Your task to perform on an android device: clear history in the chrome app Image 0: 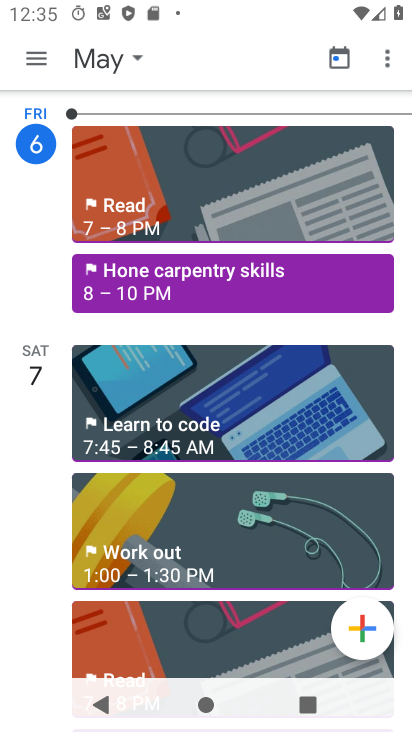
Step 0: press home button
Your task to perform on an android device: clear history in the chrome app Image 1: 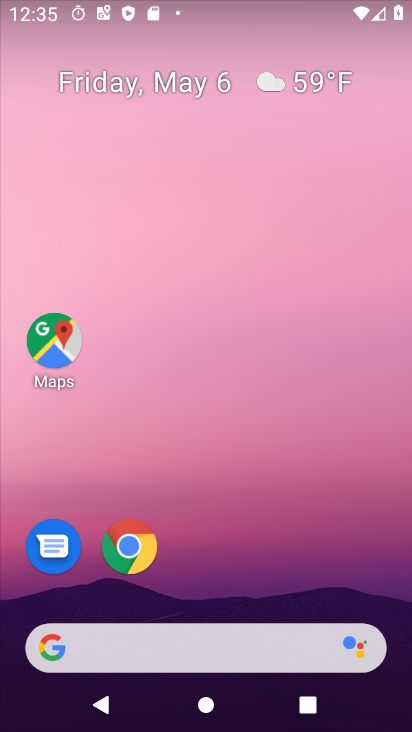
Step 1: click (135, 551)
Your task to perform on an android device: clear history in the chrome app Image 2: 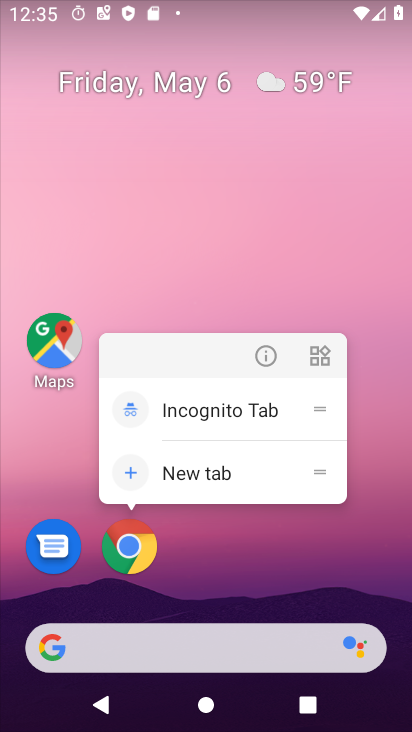
Step 2: click (134, 550)
Your task to perform on an android device: clear history in the chrome app Image 3: 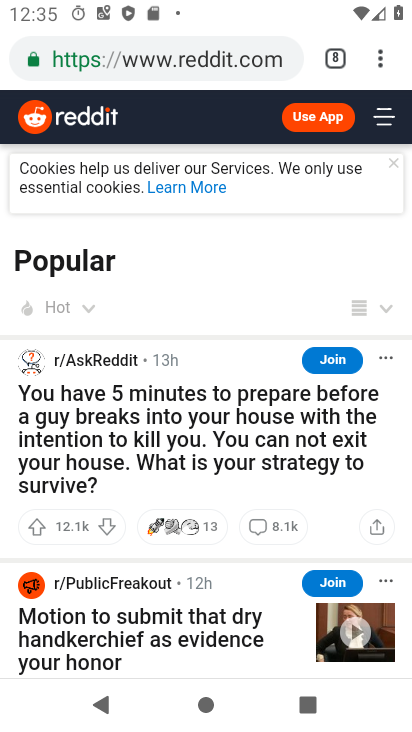
Step 3: click (387, 52)
Your task to perform on an android device: clear history in the chrome app Image 4: 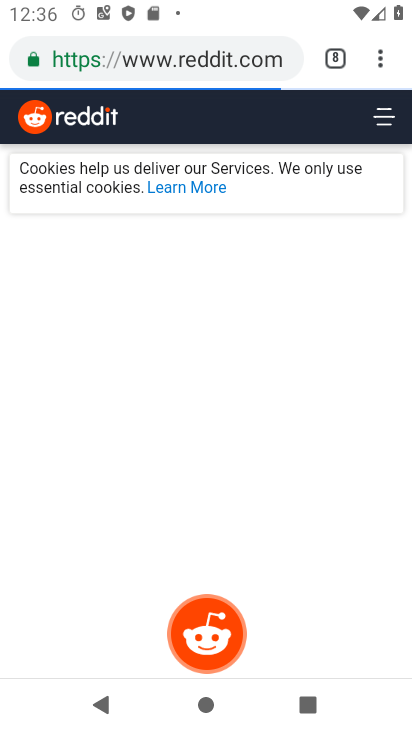
Step 4: click (387, 67)
Your task to perform on an android device: clear history in the chrome app Image 5: 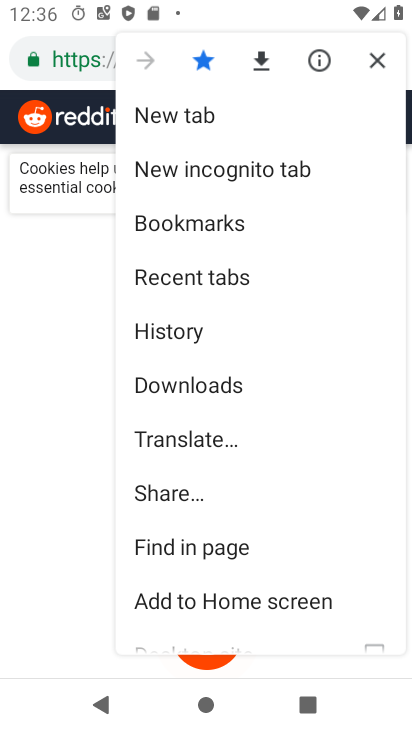
Step 5: click (189, 331)
Your task to perform on an android device: clear history in the chrome app Image 6: 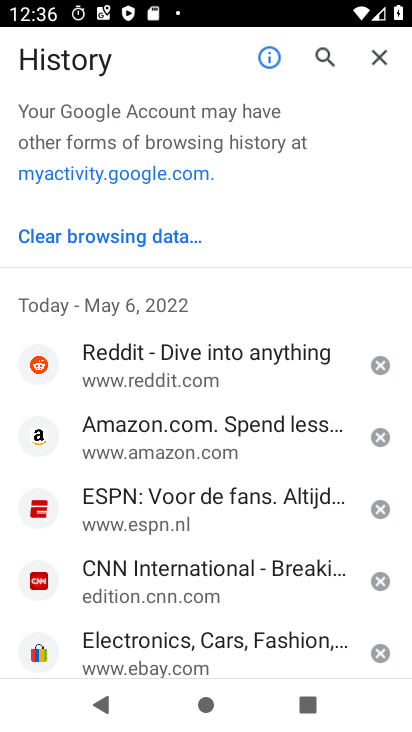
Step 6: click (155, 242)
Your task to perform on an android device: clear history in the chrome app Image 7: 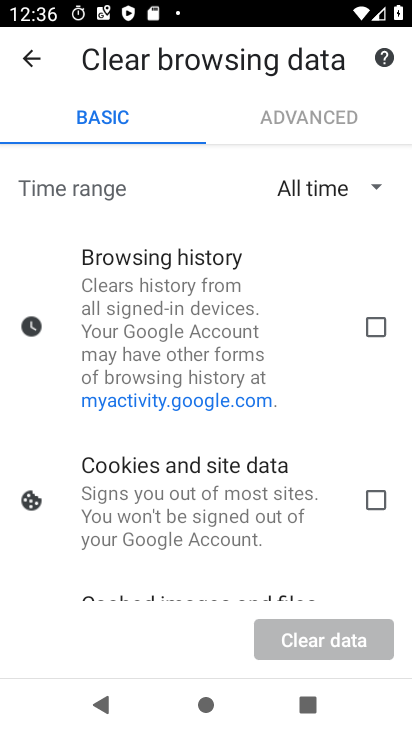
Step 7: click (376, 328)
Your task to perform on an android device: clear history in the chrome app Image 8: 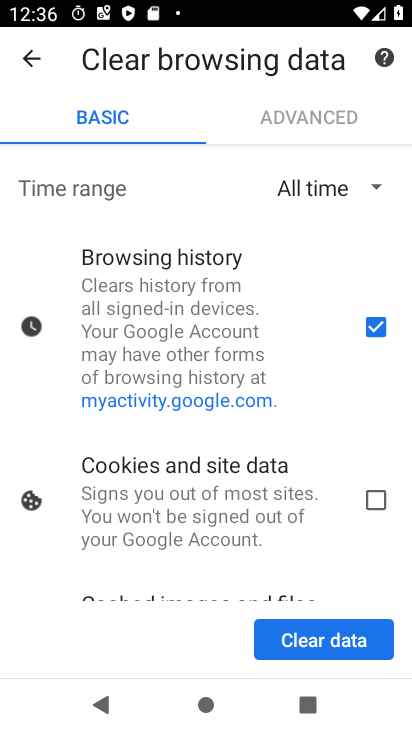
Step 8: click (377, 494)
Your task to perform on an android device: clear history in the chrome app Image 9: 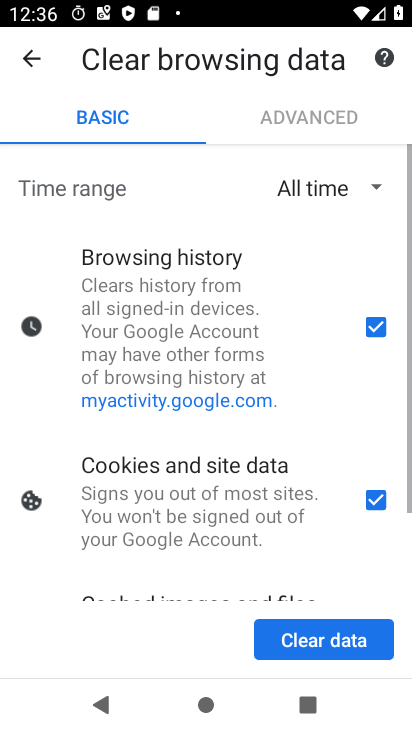
Step 9: drag from (249, 503) to (239, 281)
Your task to perform on an android device: clear history in the chrome app Image 10: 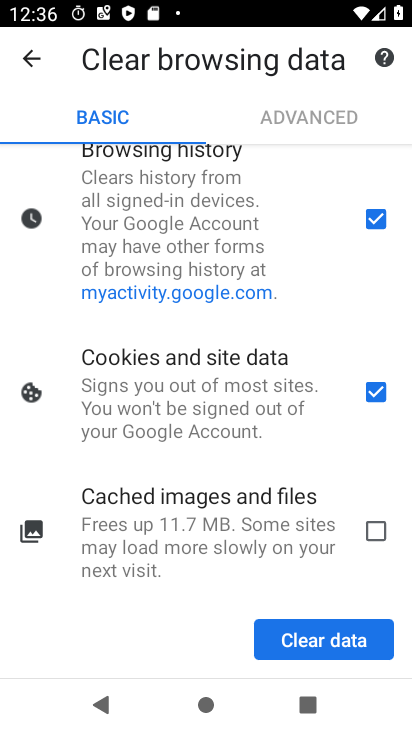
Step 10: click (370, 533)
Your task to perform on an android device: clear history in the chrome app Image 11: 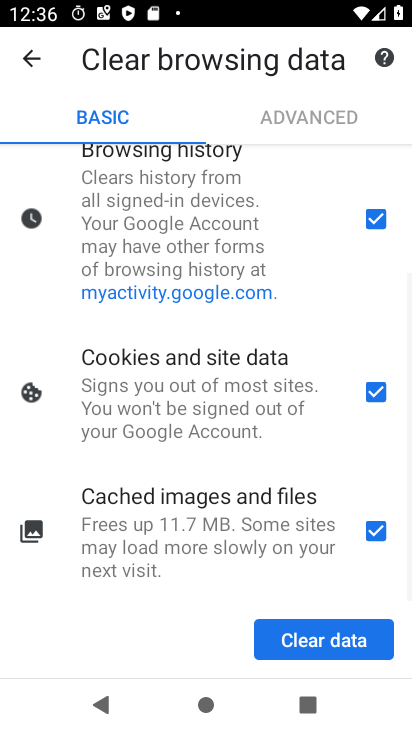
Step 11: click (311, 633)
Your task to perform on an android device: clear history in the chrome app Image 12: 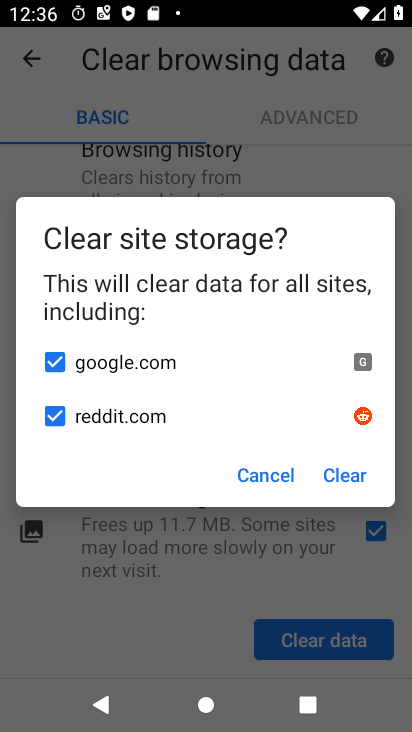
Step 12: click (365, 469)
Your task to perform on an android device: clear history in the chrome app Image 13: 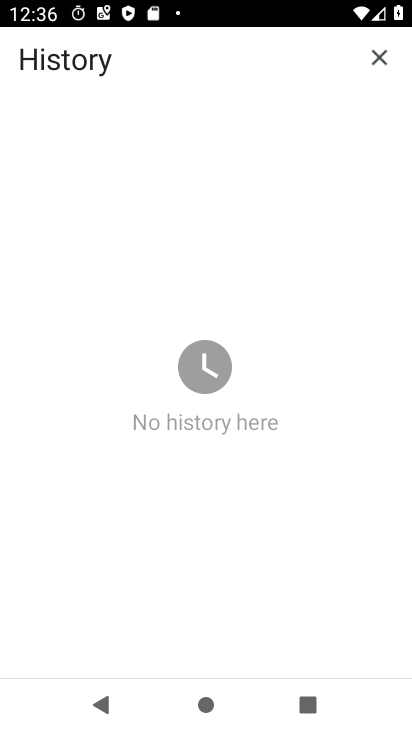
Step 13: task complete